Your task to perform on an android device: Search for vegetarian restaurants on Maps Image 0: 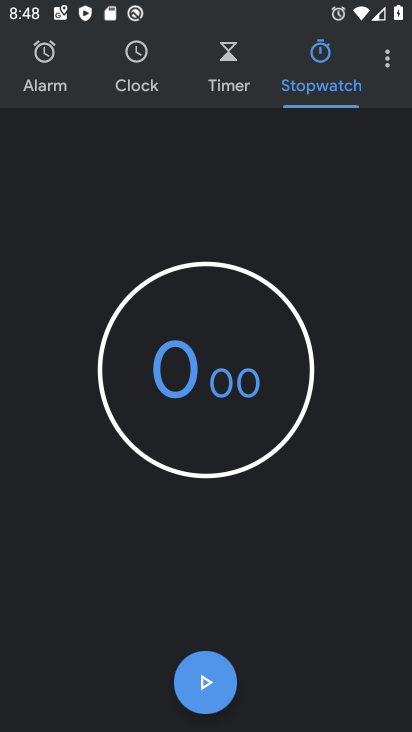
Step 0: press home button
Your task to perform on an android device: Search for vegetarian restaurants on Maps Image 1: 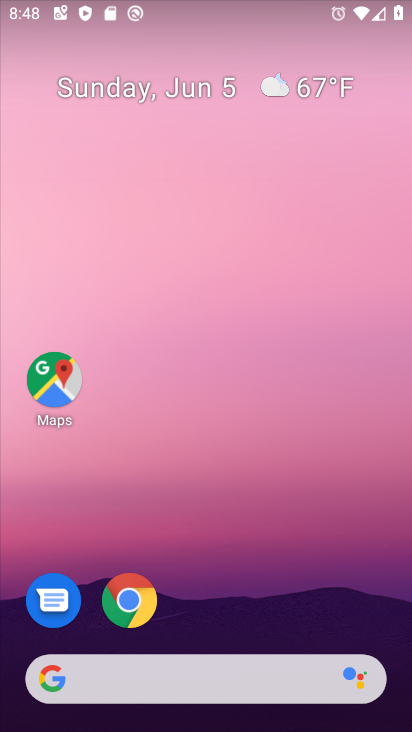
Step 1: drag from (387, 647) to (282, 87)
Your task to perform on an android device: Search for vegetarian restaurants on Maps Image 2: 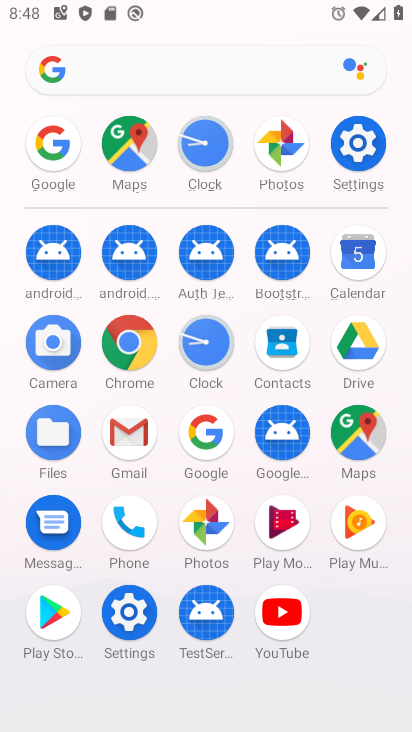
Step 2: click (345, 434)
Your task to perform on an android device: Search for vegetarian restaurants on Maps Image 3: 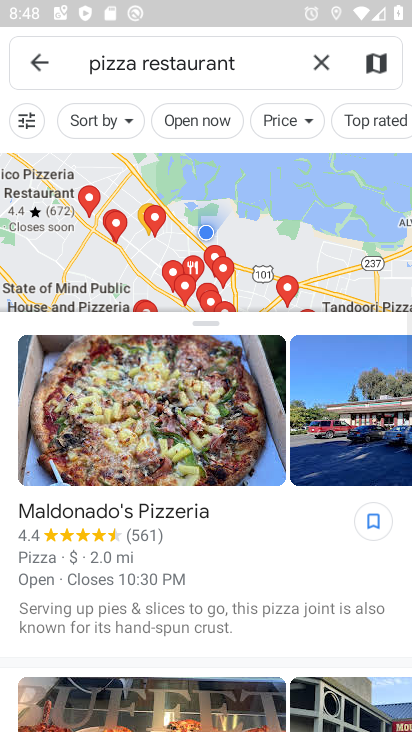
Step 3: click (326, 62)
Your task to perform on an android device: Search for vegetarian restaurants on Maps Image 4: 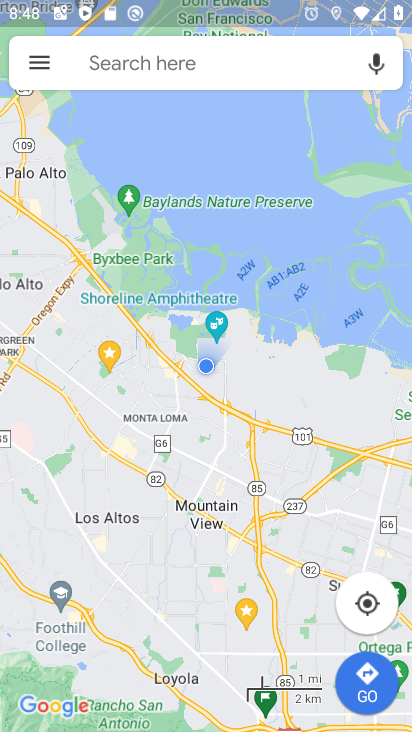
Step 4: click (107, 64)
Your task to perform on an android device: Search for vegetarian restaurants on Maps Image 5: 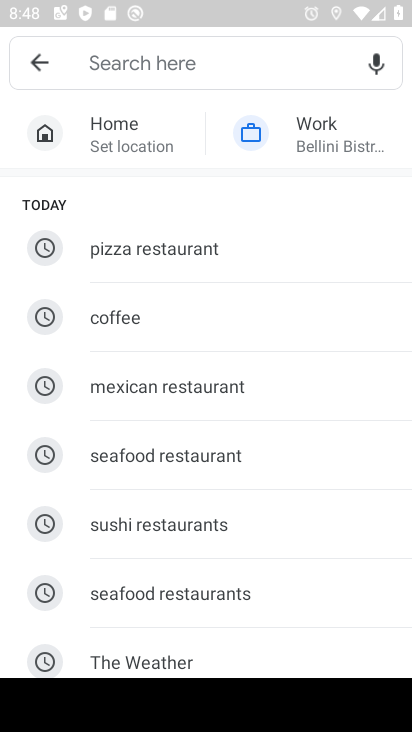
Step 5: drag from (172, 612) to (225, 281)
Your task to perform on an android device: Search for vegetarian restaurants on Maps Image 6: 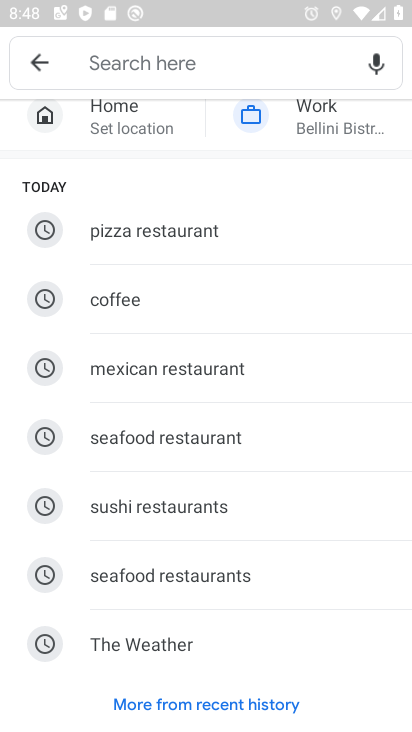
Step 6: click (120, 56)
Your task to perform on an android device: Search for vegetarian restaurants on Maps Image 7: 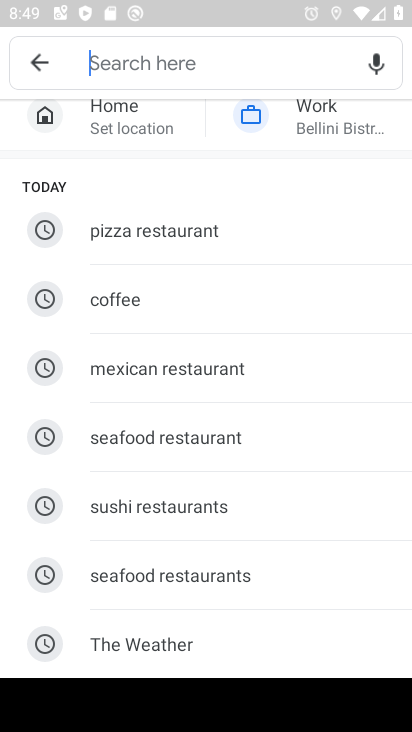
Step 7: type "vegetarian restaurnats"
Your task to perform on an android device: Search for vegetarian restaurants on Maps Image 8: 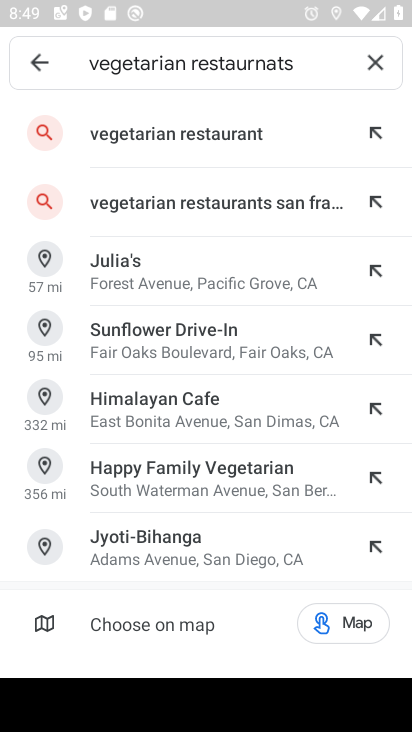
Step 8: click (213, 151)
Your task to perform on an android device: Search for vegetarian restaurants on Maps Image 9: 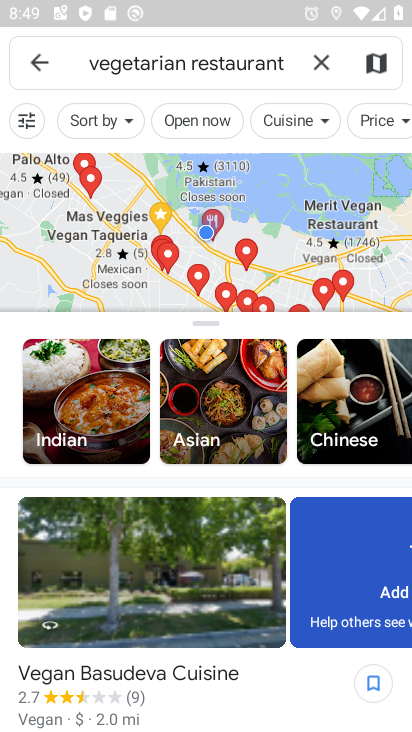
Step 9: task complete